Your task to perform on an android device: check out phone information Image 0: 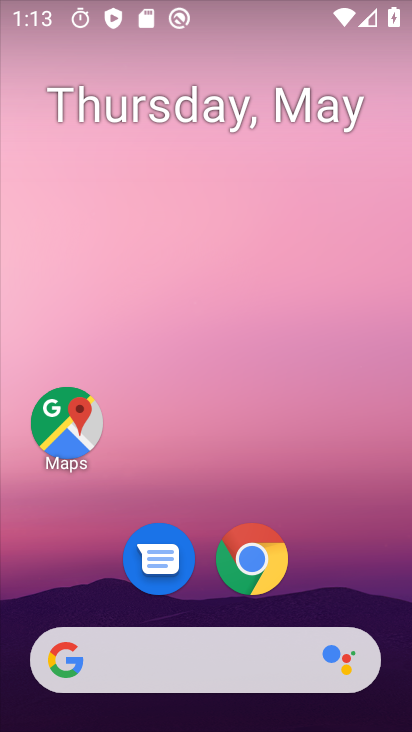
Step 0: drag from (58, 620) to (174, 131)
Your task to perform on an android device: check out phone information Image 1: 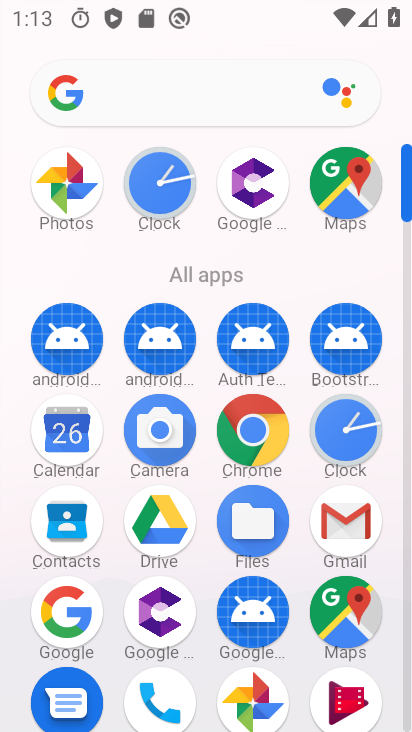
Step 1: drag from (175, 618) to (247, 368)
Your task to perform on an android device: check out phone information Image 2: 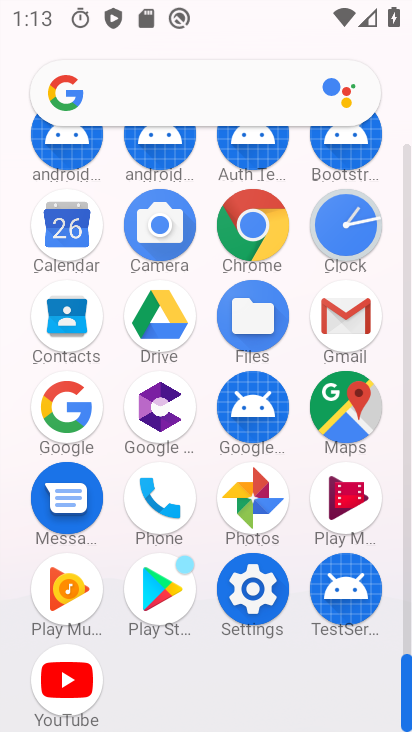
Step 2: click (258, 605)
Your task to perform on an android device: check out phone information Image 3: 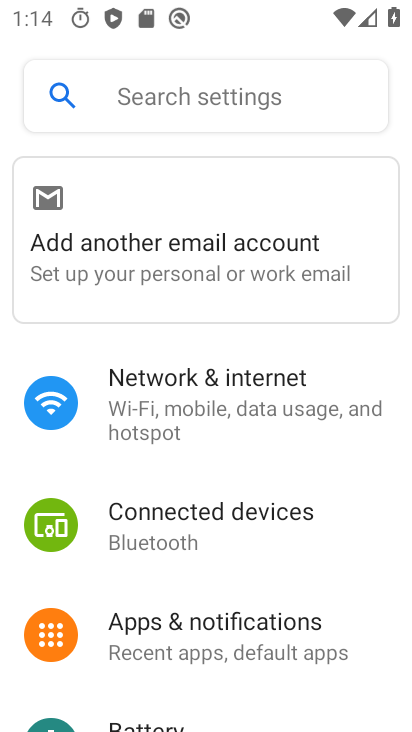
Step 3: drag from (241, 673) to (373, 90)
Your task to perform on an android device: check out phone information Image 4: 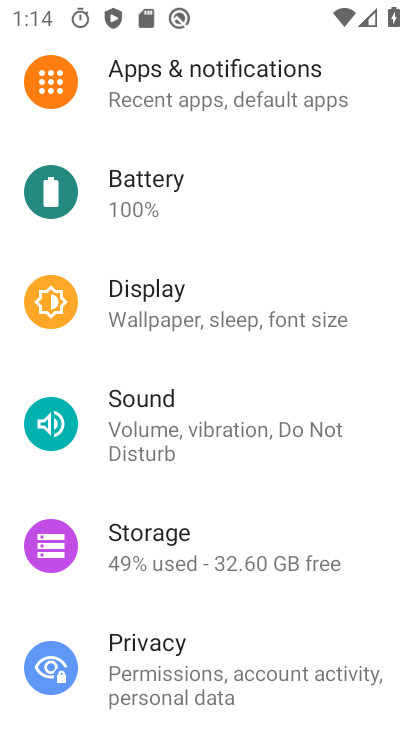
Step 4: drag from (226, 662) to (333, 199)
Your task to perform on an android device: check out phone information Image 5: 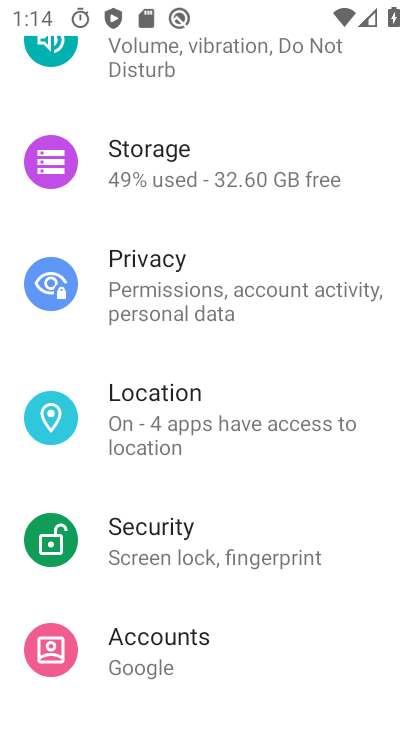
Step 5: drag from (269, 538) to (390, 197)
Your task to perform on an android device: check out phone information Image 6: 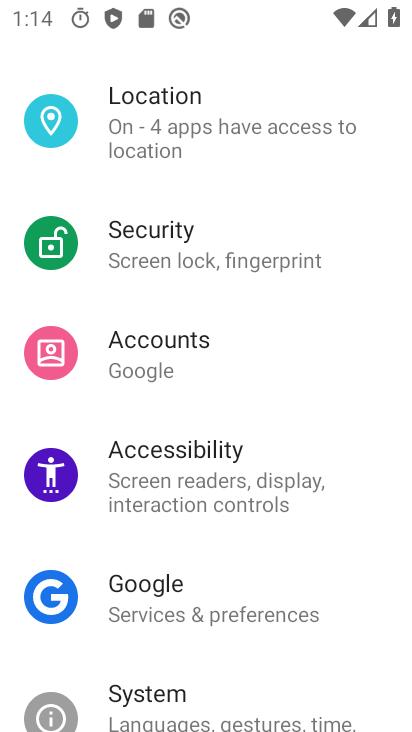
Step 6: drag from (222, 671) to (317, 249)
Your task to perform on an android device: check out phone information Image 7: 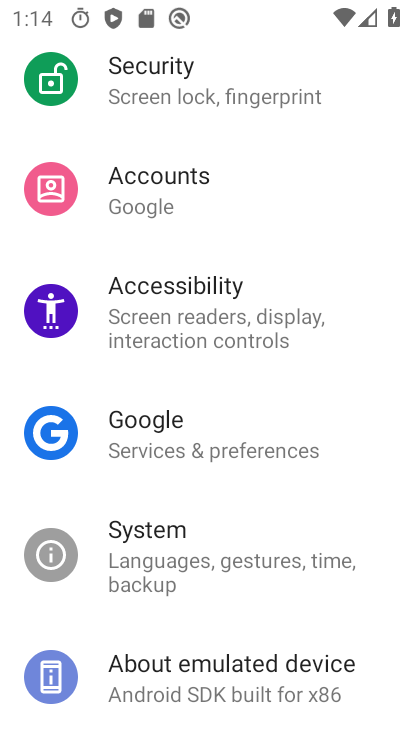
Step 7: drag from (234, 532) to (308, 242)
Your task to perform on an android device: check out phone information Image 8: 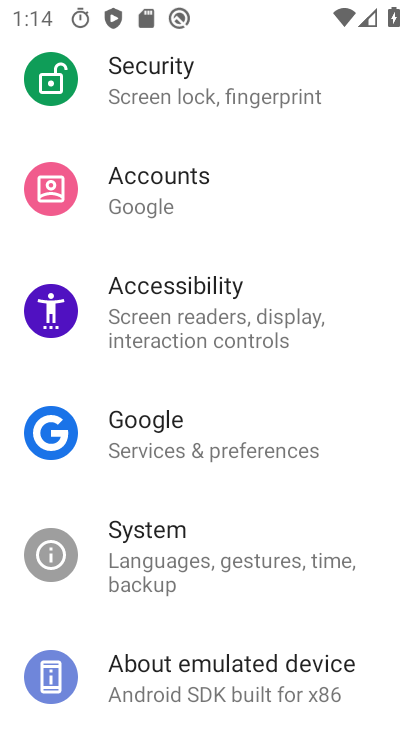
Step 8: click (303, 690)
Your task to perform on an android device: check out phone information Image 9: 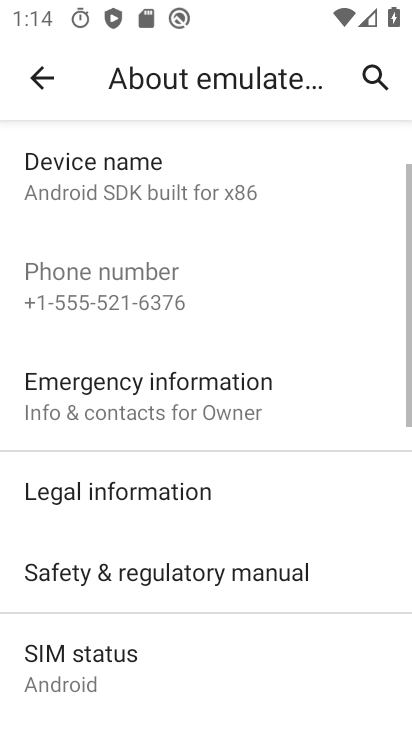
Step 9: task complete